Your task to perform on an android device: refresh tabs in the chrome app Image 0: 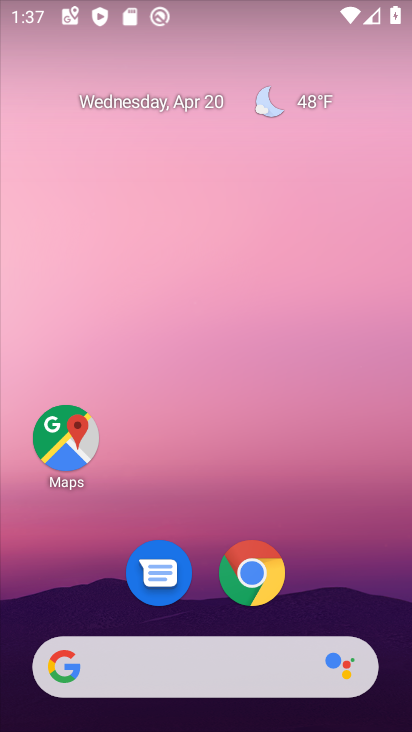
Step 0: drag from (162, 662) to (316, 132)
Your task to perform on an android device: refresh tabs in the chrome app Image 1: 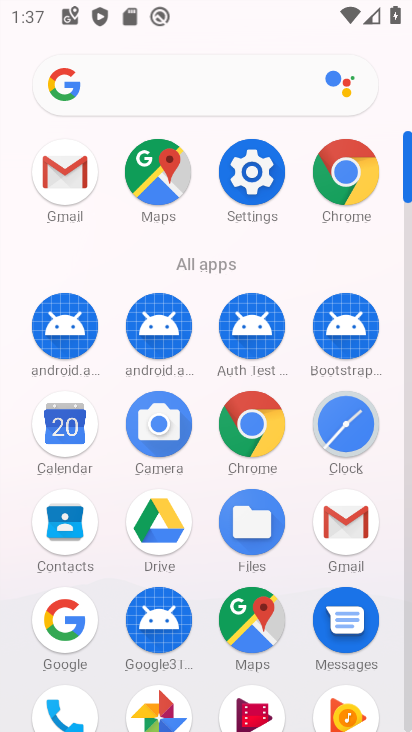
Step 1: click (341, 176)
Your task to perform on an android device: refresh tabs in the chrome app Image 2: 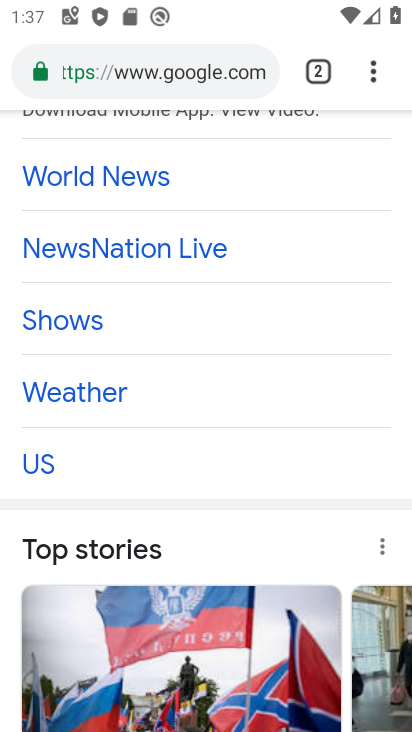
Step 2: click (372, 74)
Your task to perform on an android device: refresh tabs in the chrome app Image 3: 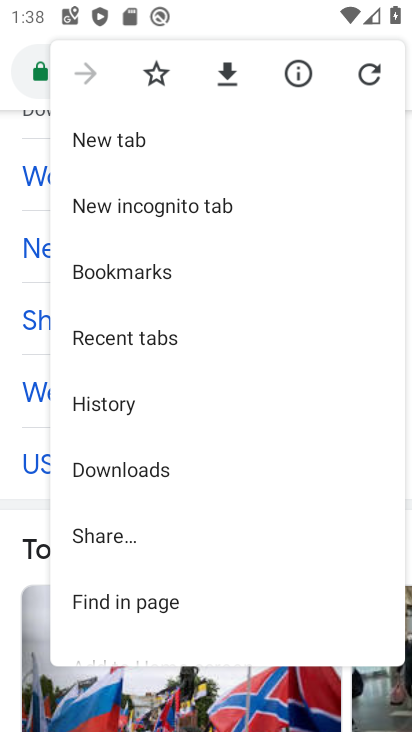
Step 3: click (360, 78)
Your task to perform on an android device: refresh tabs in the chrome app Image 4: 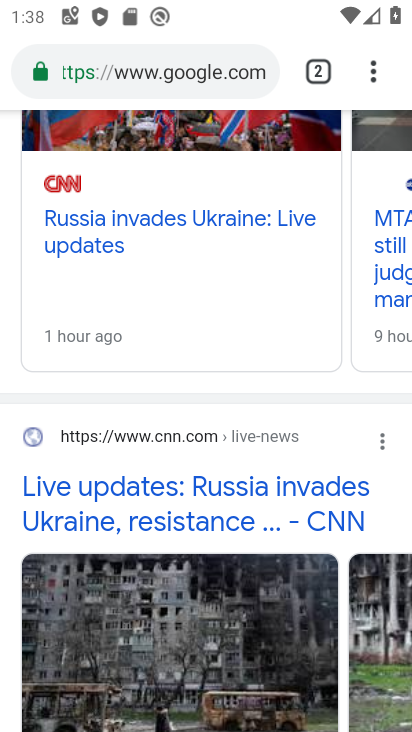
Step 4: task complete